Your task to perform on an android device: turn on bluetooth scan Image 0: 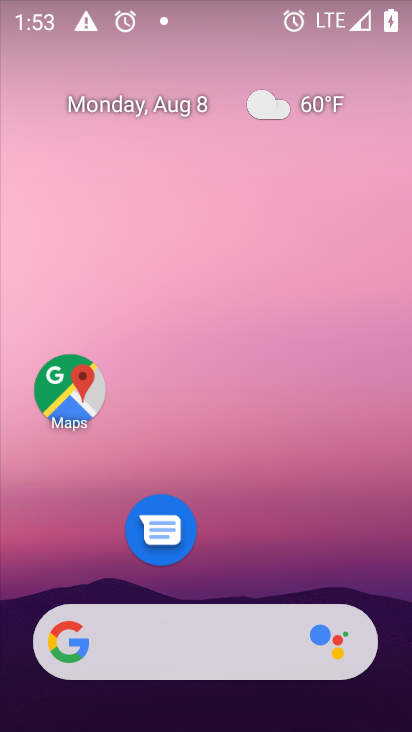
Step 0: click (209, 205)
Your task to perform on an android device: turn on bluetooth scan Image 1: 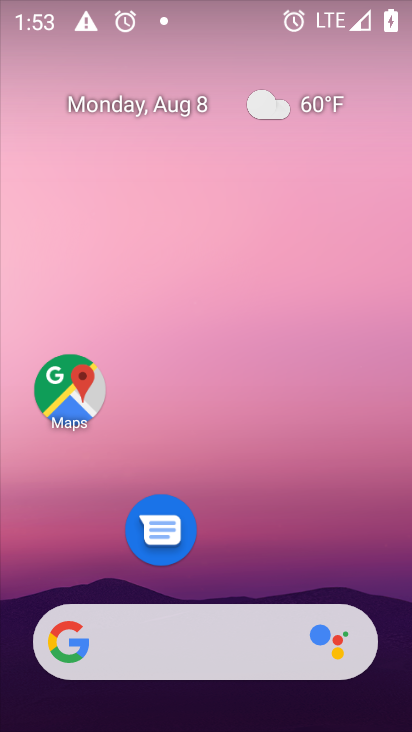
Step 1: drag from (223, 594) to (191, 57)
Your task to perform on an android device: turn on bluetooth scan Image 2: 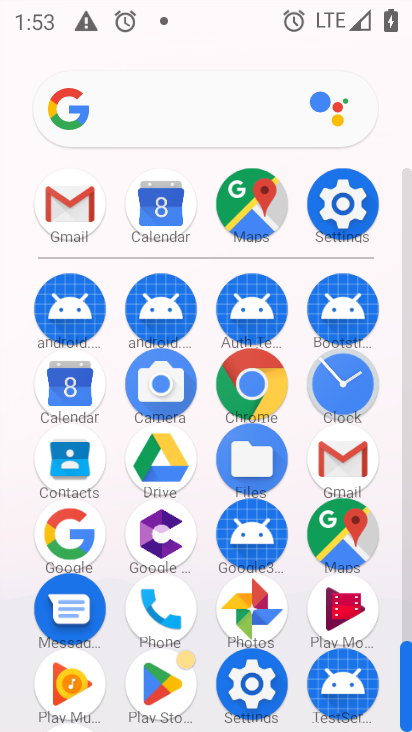
Step 2: click (333, 201)
Your task to perform on an android device: turn on bluetooth scan Image 3: 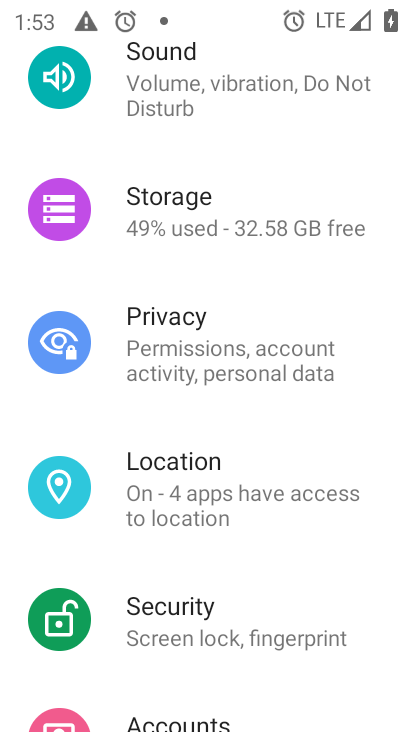
Step 3: click (183, 483)
Your task to perform on an android device: turn on bluetooth scan Image 4: 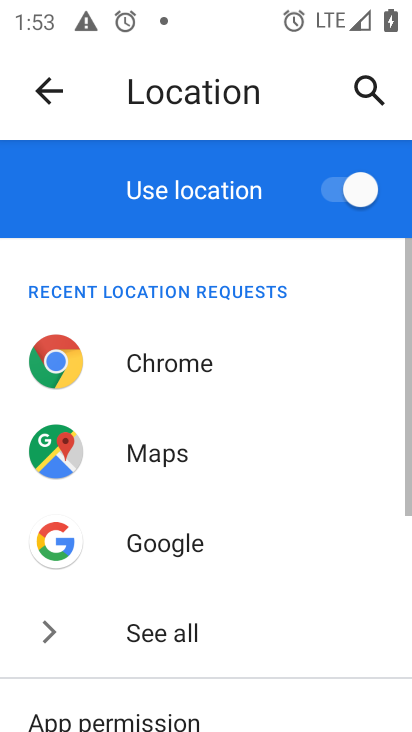
Step 4: drag from (197, 704) to (166, 412)
Your task to perform on an android device: turn on bluetooth scan Image 5: 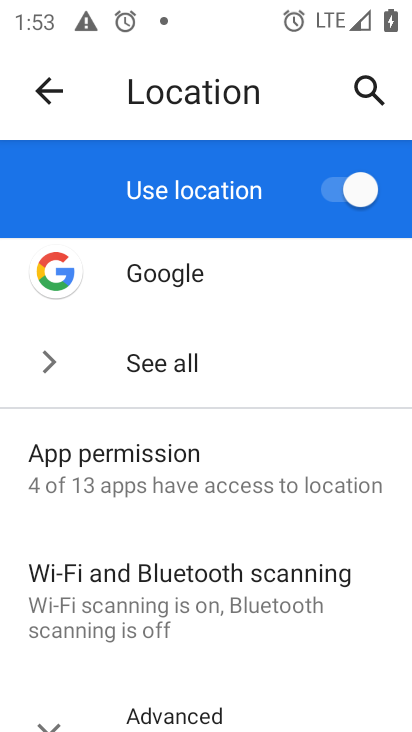
Step 5: click (139, 601)
Your task to perform on an android device: turn on bluetooth scan Image 6: 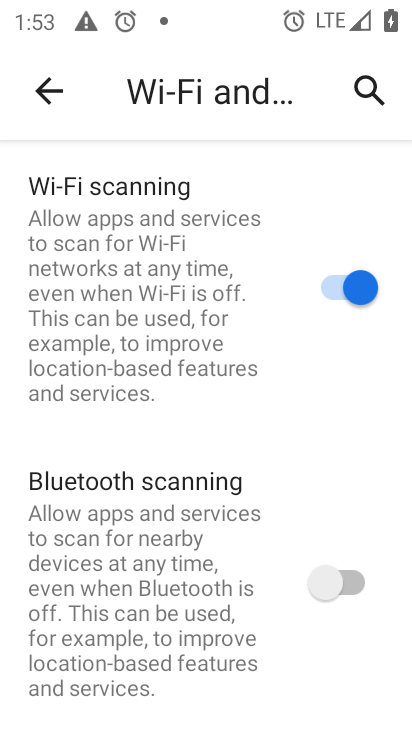
Step 6: click (343, 580)
Your task to perform on an android device: turn on bluetooth scan Image 7: 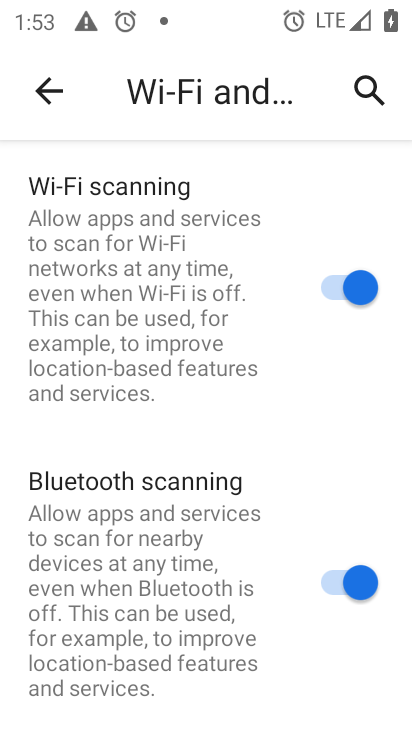
Step 7: task complete